Your task to perform on an android device: open app "LinkedIn" (install if not already installed) Image 0: 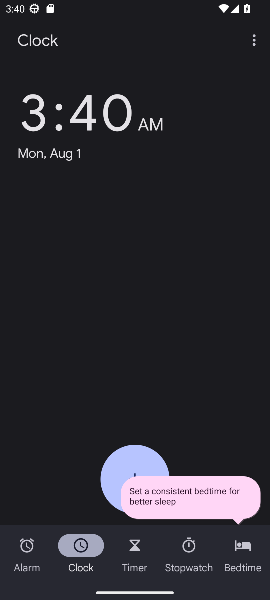
Step 0: press home button
Your task to perform on an android device: open app "LinkedIn" (install if not already installed) Image 1: 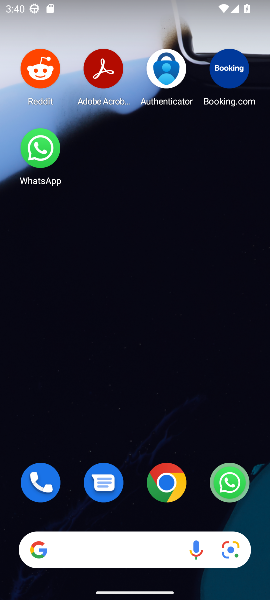
Step 1: press home button
Your task to perform on an android device: open app "LinkedIn" (install if not already installed) Image 2: 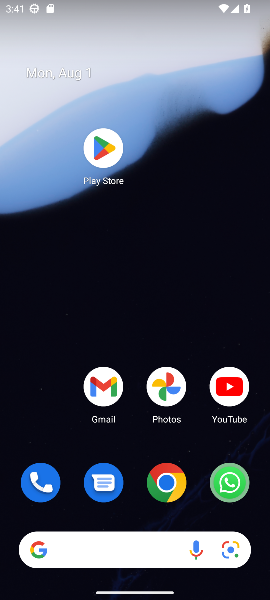
Step 2: click (106, 141)
Your task to perform on an android device: open app "LinkedIn" (install if not already installed) Image 3: 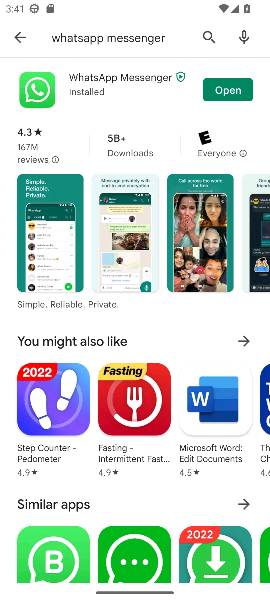
Step 3: click (208, 35)
Your task to perform on an android device: open app "LinkedIn" (install if not already installed) Image 4: 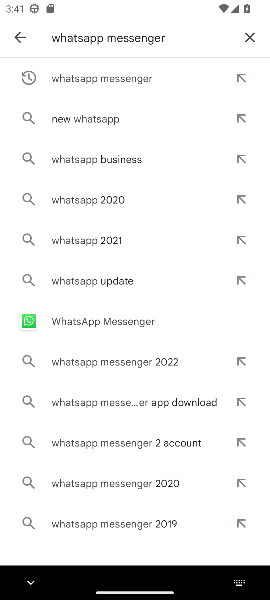
Step 4: click (249, 30)
Your task to perform on an android device: open app "LinkedIn" (install if not already installed) Image 5: 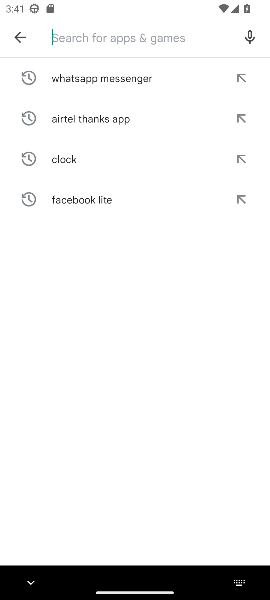
Step 5: type "LinkedIn"
Your task to perform on an android device: open app "LinkedIn" (install if not already installed) Image 6: 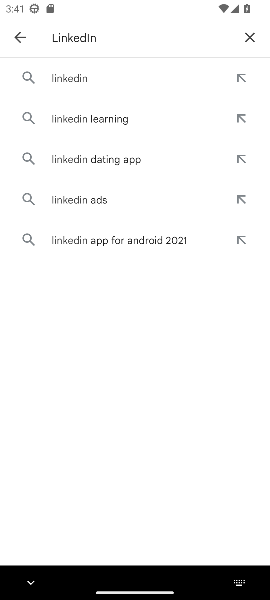
Step 6: click (80, 77)
Your task to perform on an android device: open app "LinkedIn" (install if not already installed) Image 7: 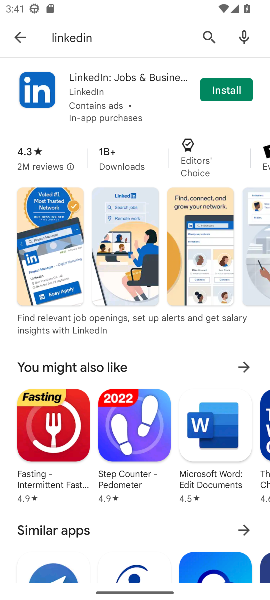
Step 7: click (218, 88)
Your task to perform on an android device: open app "LinkedIn" (install if not already installed) Image 8: 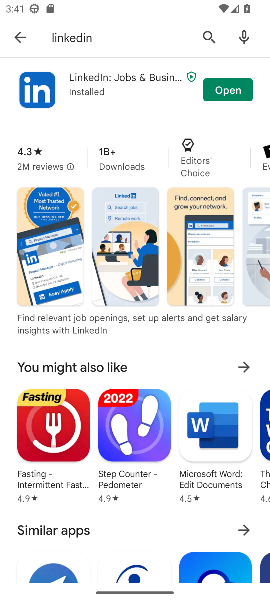
Step 8: click (226, 90)
Your task to perform on an android device: open app "LinkedIn" (install if not already installed) Image 9: 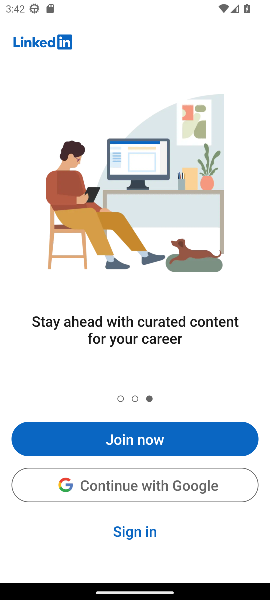
Step 9: task complete